Your task to perform on an android device: change notification settings in the gmail app Image 0: 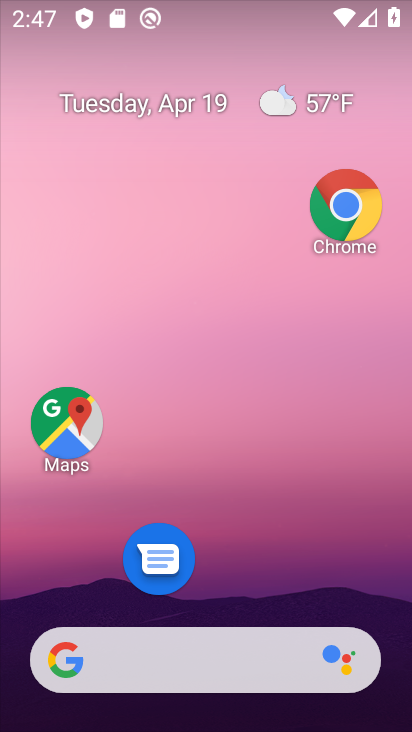
Step 0: drag from (214, 487) to (258, 245)
Your task to perform on an android device: change notification settings in the gmail app Image 1: 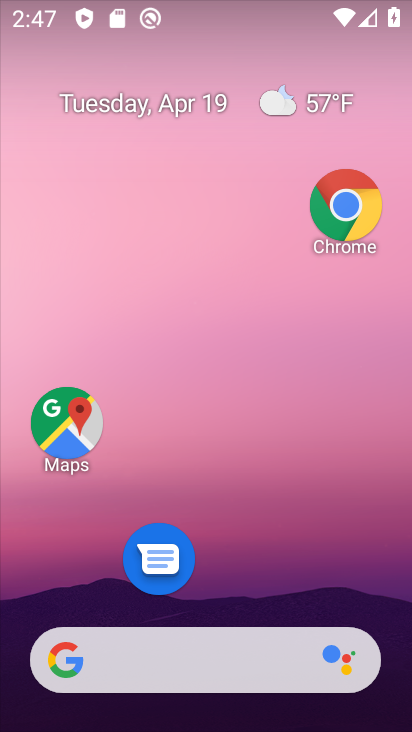
Step 1: drag from (181, 491) to (194, 241)
Your task to perform on an android device: change notification settings in the gmail app Image 2: 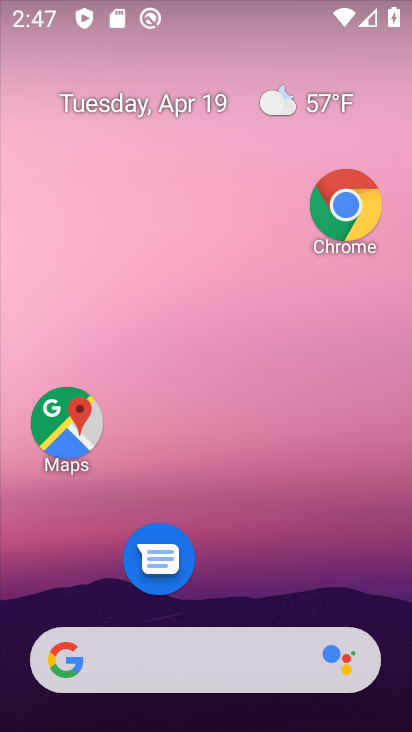
Step 2: drag from (192, 604) to (321, 166)
Your task to perform on an android device: change notification settings in the gmail app Image 3: 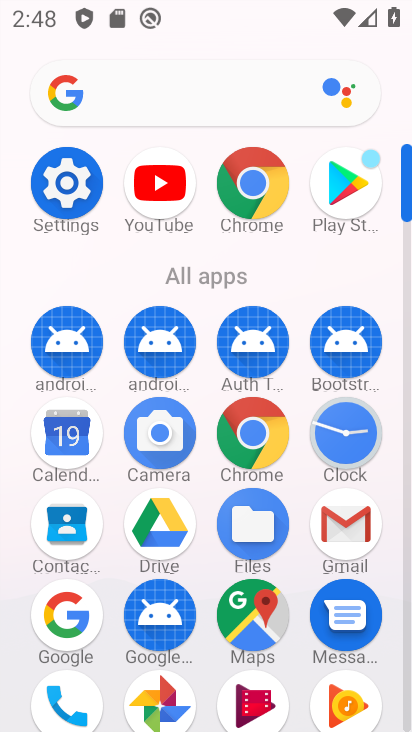
Step 3: click (333, 534)
Your task to perform on an android device: change notification settings in the gmail app Image 4: 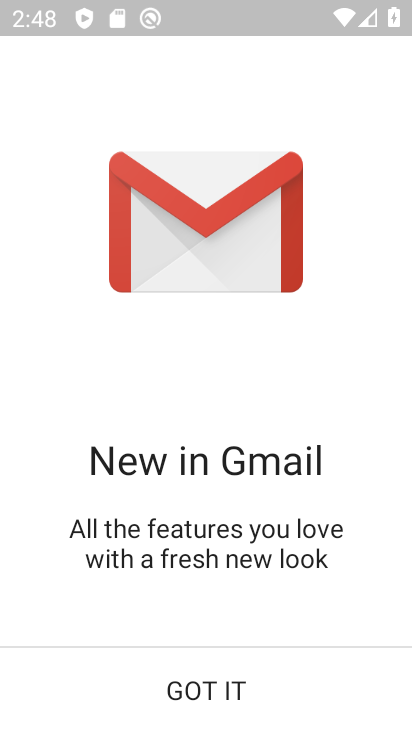
Step 4: click (234, 685)
Your task to perform on an android device: change notification settings in the gmail app Image 5: 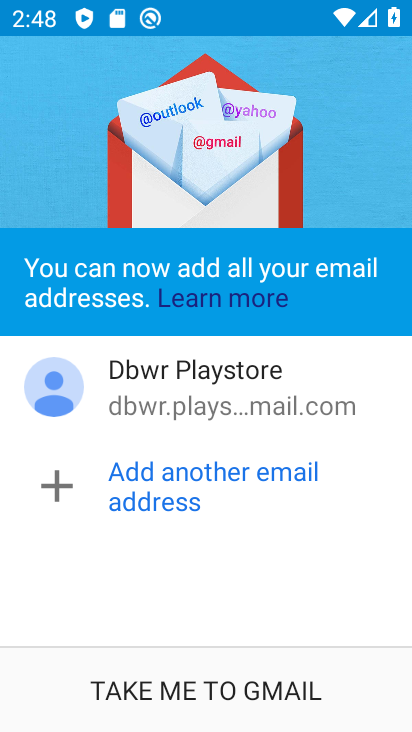
Step 5: click (222, 701)
Your task to perform on an android device: change notification settings in the gmail app Image 6: 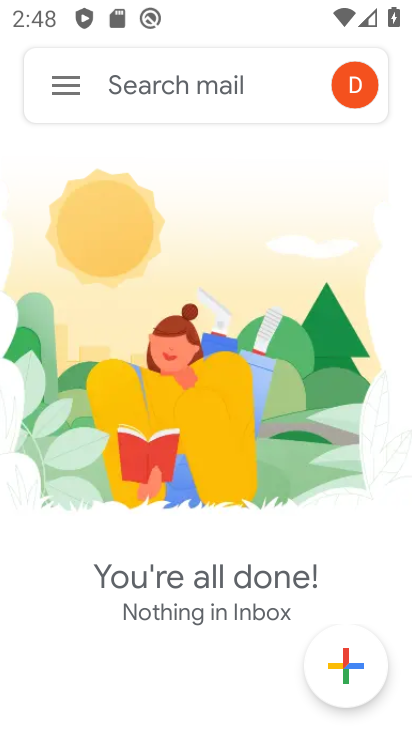
Step 6: click (76, 86)
Your task to perform on an android device: change notification settings in the gmail app Image 7: 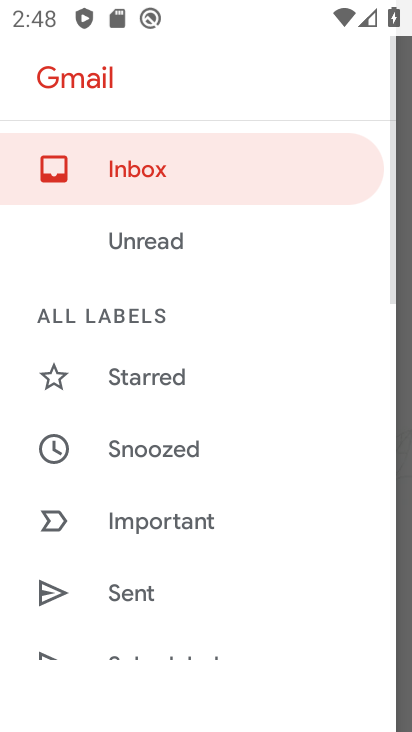
Step 7: drag from (219, 597) to (242, 276)
Your task to perform on an android device: change notification settings in the gmail app Image 8: 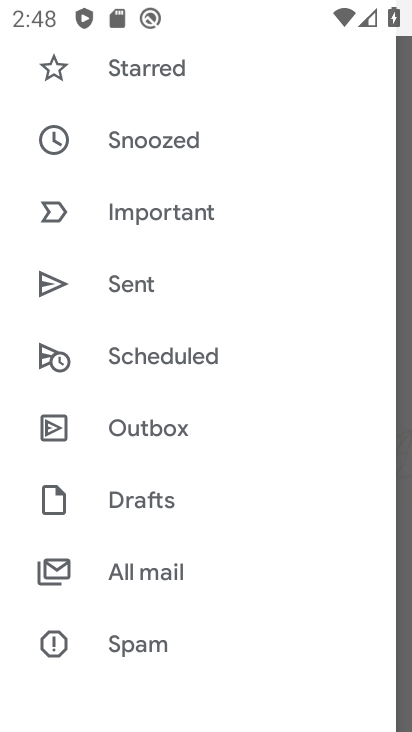
Step 8: drag from (140, 619) to (192, 282)
Your task to perform on an android device: change notification settings in the gmail app Image 9: 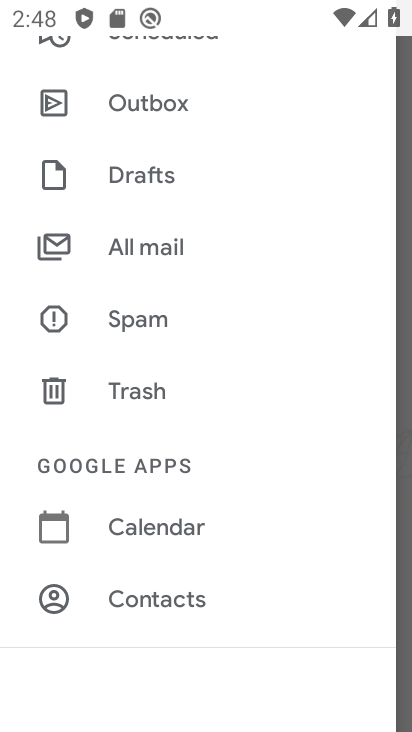
Step 9: drag from (165, 558) to (199, 270)
Your task to perform on an android device: change notification settings in the gmail app Image 10: 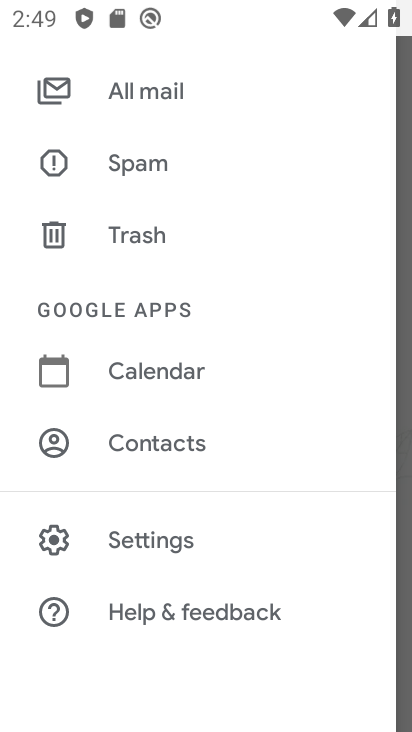
Step 10: click (174, 533)
Your task to perform on an android device: change notification settings in the gmail app Image 11: 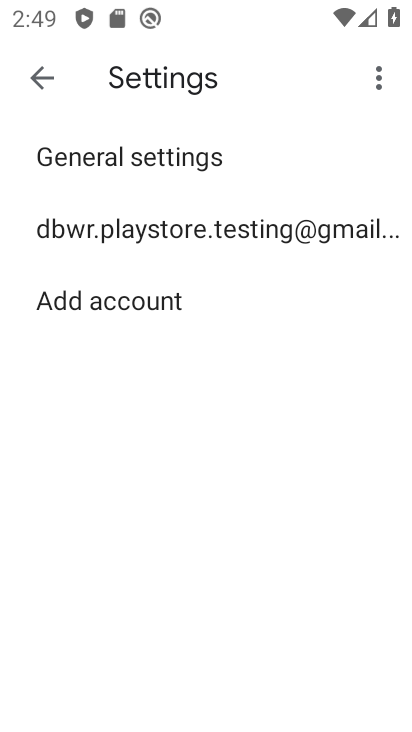
Step 11: click (196, 230)
Your task to perform on an android device: change notification settings in the gmail app Image 12: 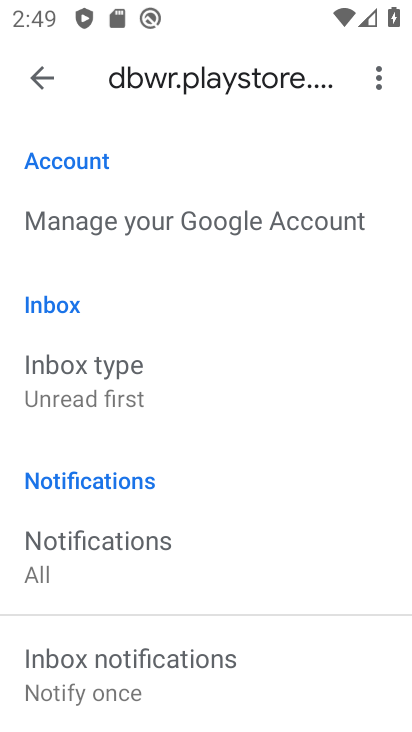
Step 12: drag from (91, 567) to (174, 264)
Your task to perform on an android device: change notification settings in the gmail app Image 13: 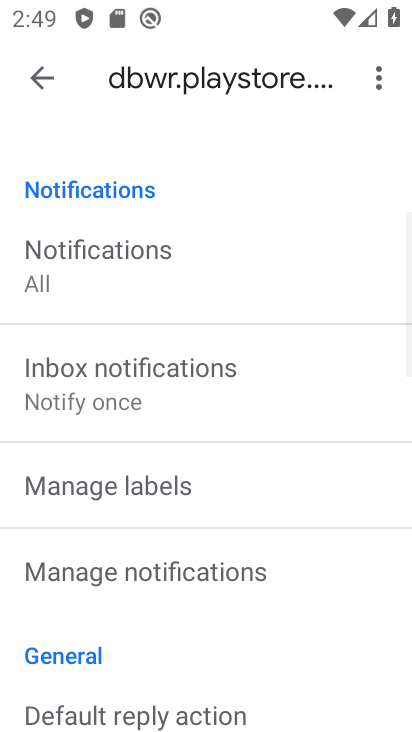
Step 13: drag from (146, 666) to (198, 446)
Your task to perform on an android device: change notification settings in the gmail app Image 14: 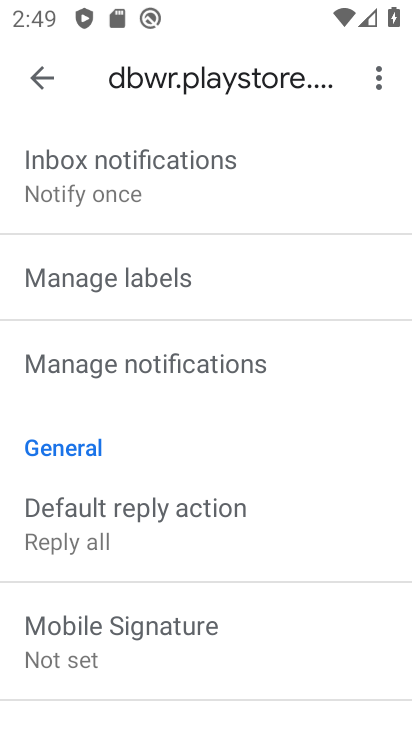
Step 14: drag from (163, 582) to (208, 349)
Your task to perform on an android device: change notification settings in the gmail app Image 15: 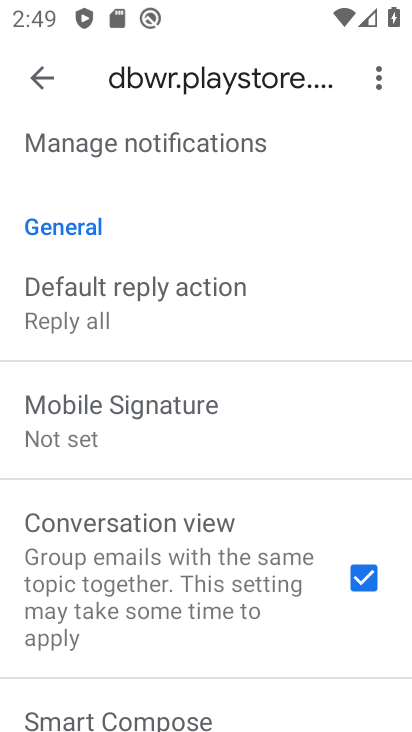
Step 15: click (171, 181)
Your task to perform on an android device: change notification settings in the gmail app Image 16: 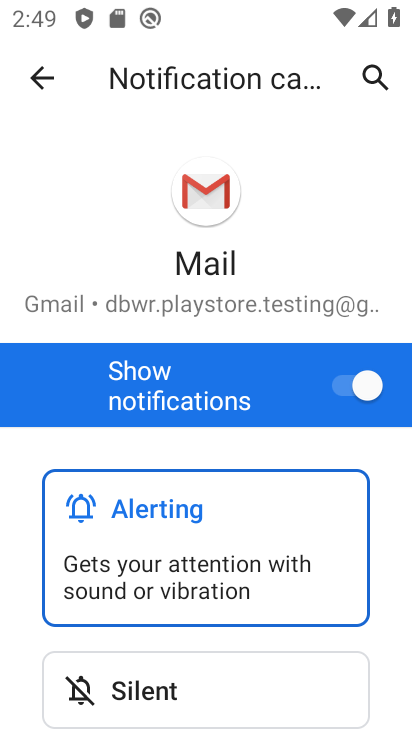
Step 16: task complete